Your task to perform on an android device: turn notification dots off Image 0: 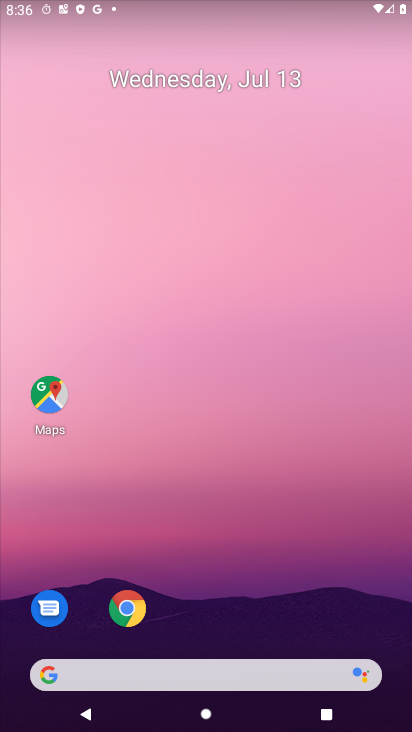
Step 0: drag from (308, 672) to (300, 207)
Your task to perform on an android device: turn notification dots off Image 1: 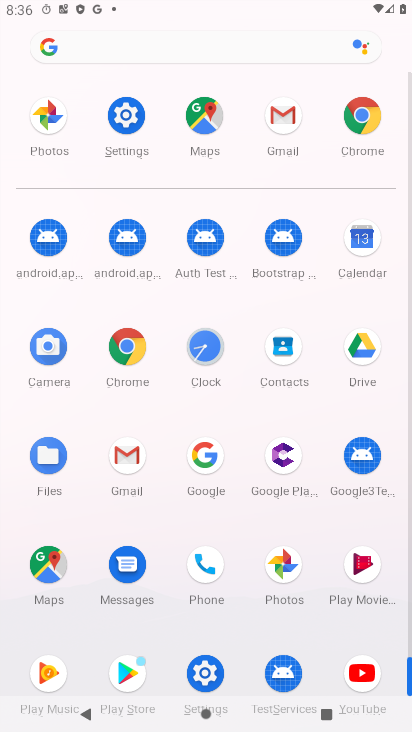
Step 1: click (123, 121)
Your task to perform on an android device: turn notification dots off Image 2: 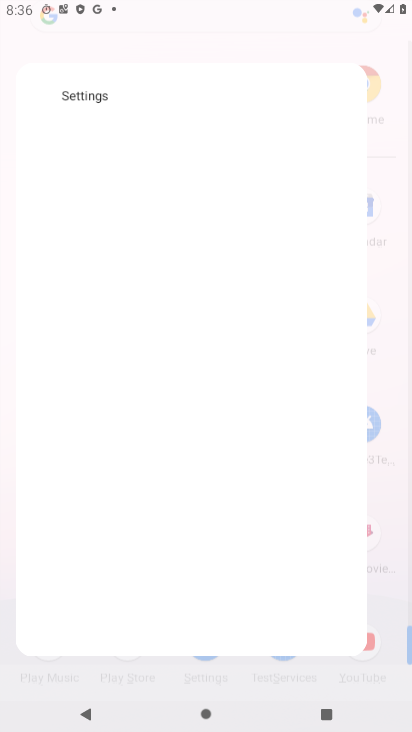
Step 2: click (141, 107)
Your task to perform on an android device: turn notification dots off Image 3: 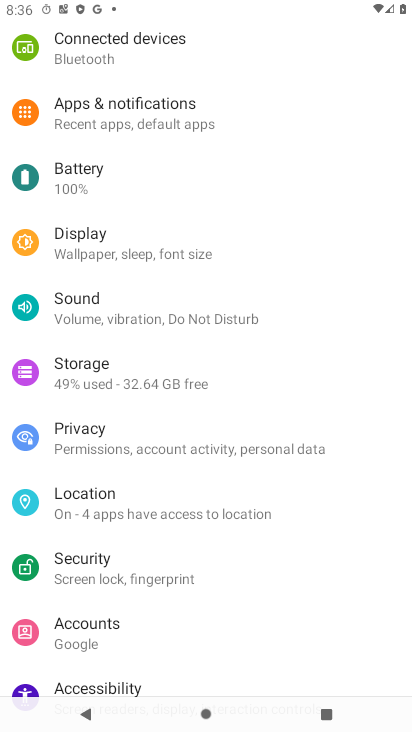
Step 3: click (141, 107)
Your task to perform on an android device: turn notification dots off Image 4: 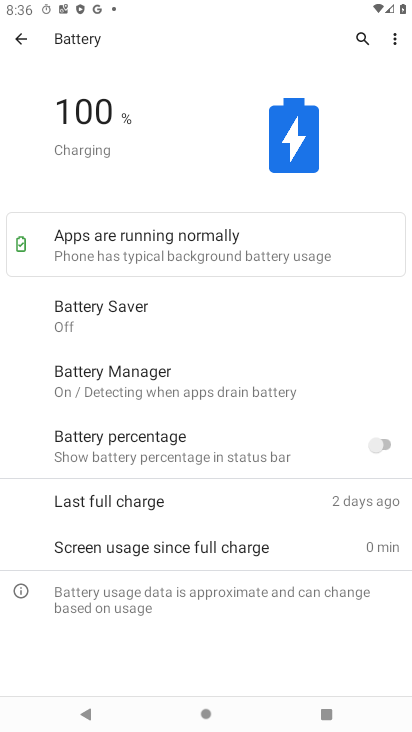
Step 4: click (22, 40)
Your task to perform on an android device: turn notification dots off Image 5: 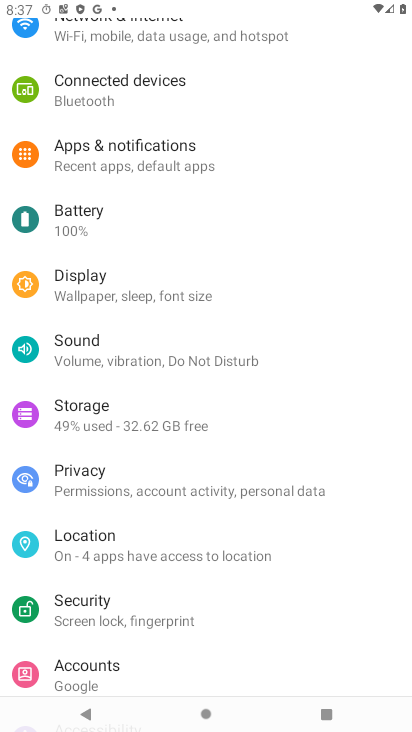
Step 5: click (137, 161)
Your task to perform on an android device: turn notification dots off Image 6: 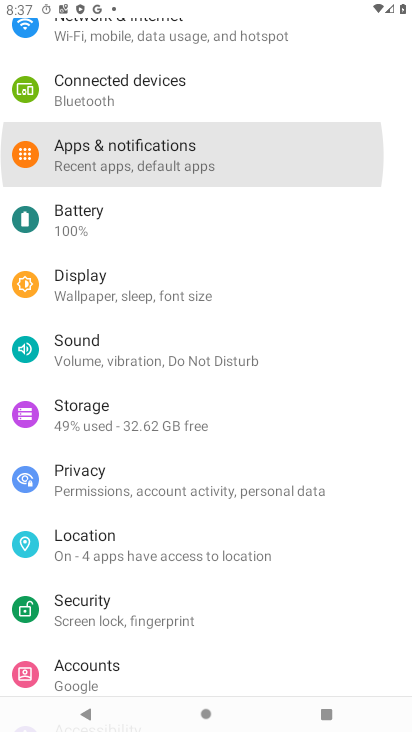
Step 6: click (137, 161)
Your task to perform on an android device: turn notification dots off Image 7: 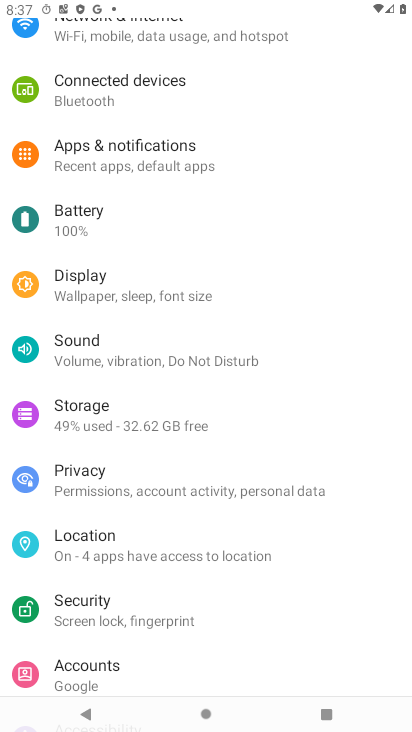
Step 7: click (137, 161)
Your task to perform on an android device: turn notification dots off Image 8: 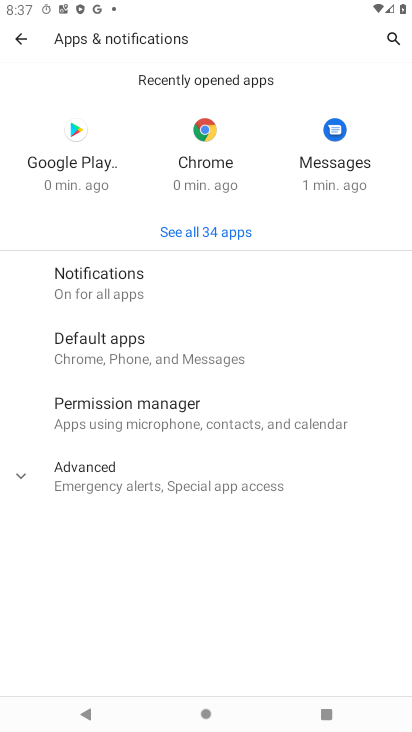
Step 8: click (81, 277)
Your task to perform on an android device: turn notification dots off Image 9: 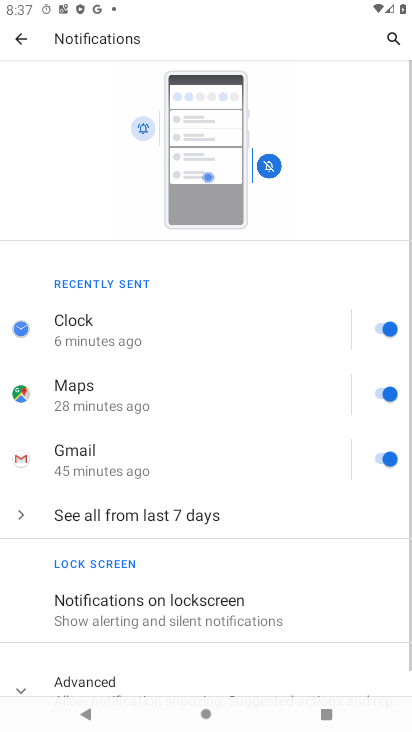
Step 9: drag from (182, 555) to (154, 244)
Your task to perform on an android device: turn notification dots off Image 10: 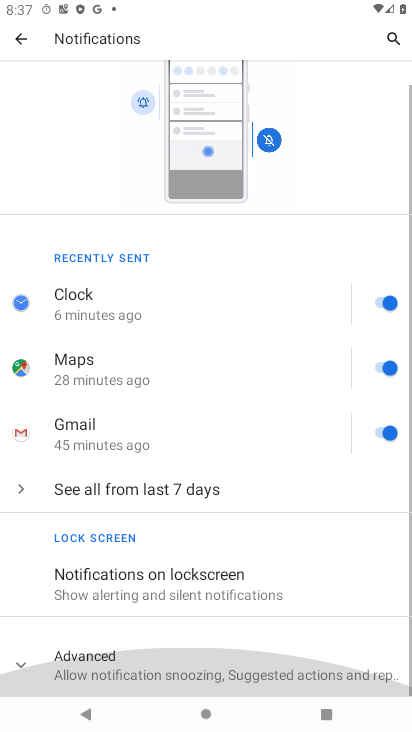
Step 10: drag from (228, 568) to (228, 237)
Your task to perform on an android device: turn notification dots off Image 11: 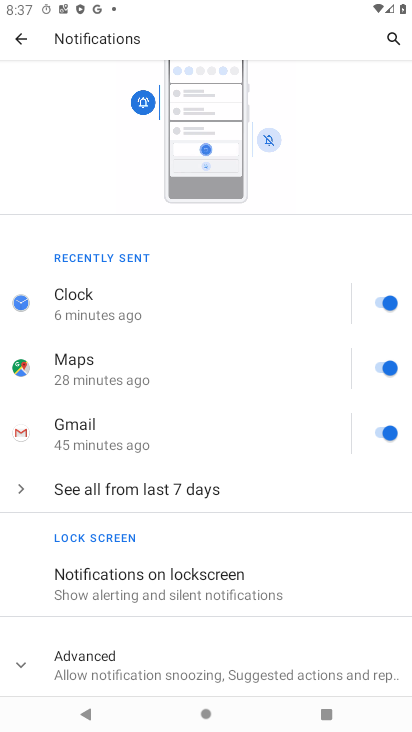
Step 11: click (106, 668)
Your task to perform on an android device: turn notification dots off Image 12: 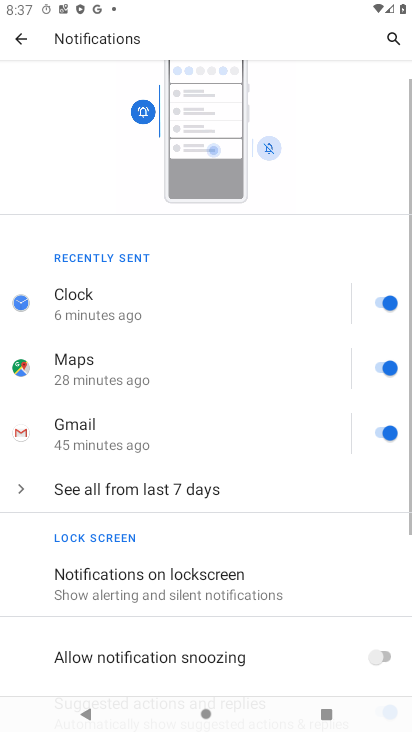
Step 12: drag from (210, 605) to (211, 295)
Your task to perform on an android device: turn notification dots off Image 13: 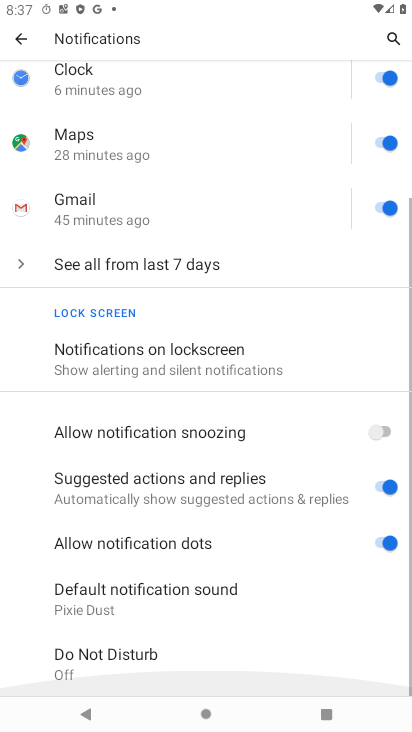
Step 13: drag from (224, 537) to (224, 328)
Your task to perform on an android device: turn notification dots off Image 14: 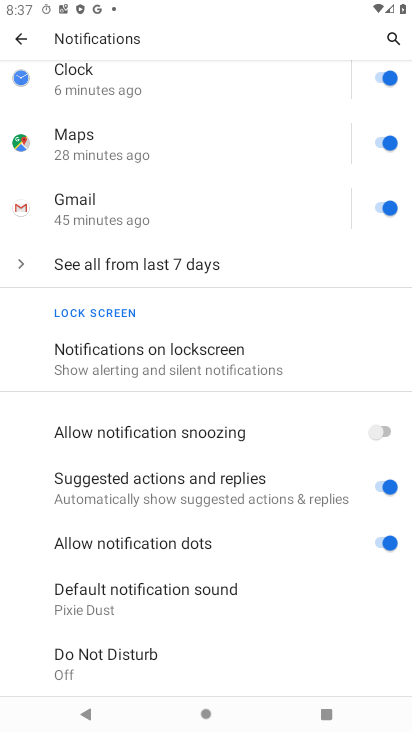
Step 14: click (391, 543)
Your task to perform on an android device: turn notification dots off Image 15: 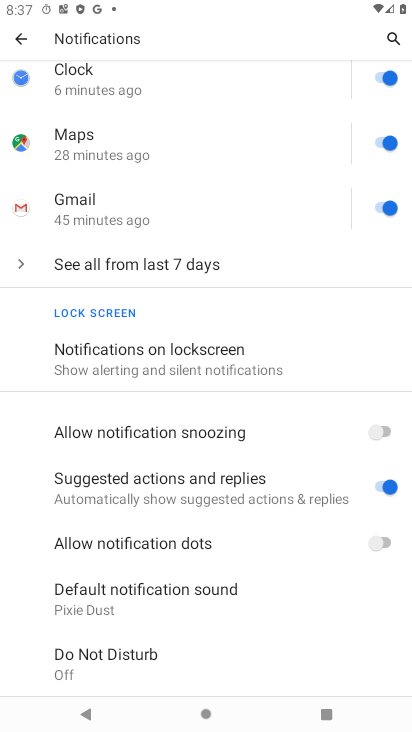
Step 15: task complete